Your task to perform on an android device: open a new tab in the chrome app Image 0: 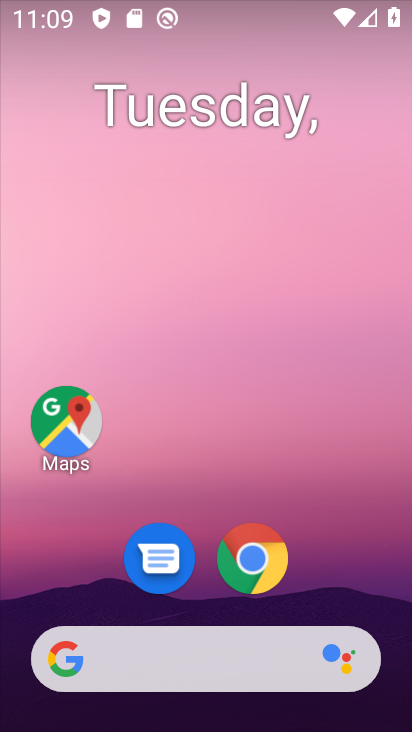
Step 0: drag from (320, 281) to (316, 14)
Your task to perform on an android device: open a new tab in the chrome app Image 1: 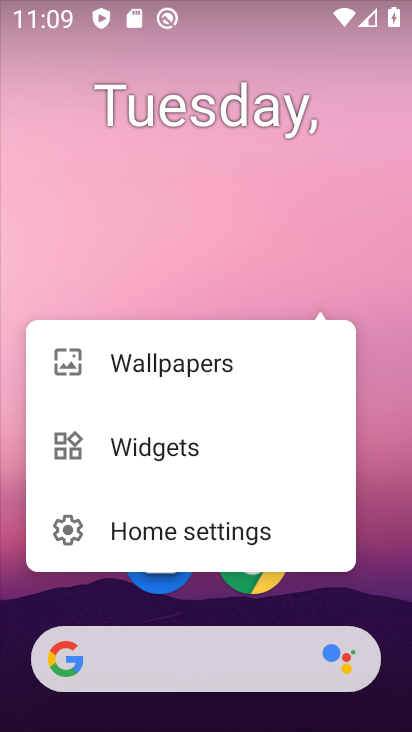
Step 1: click (174, 243)
Your task to perform on an android device: open a new tab in the chrome app Image 2: 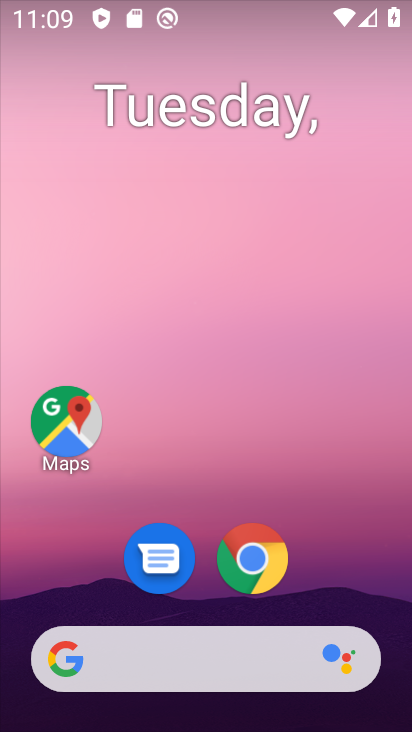
Step 2: click (267, 575)
Your task to perform on an android device: open a new tab in the chrome app Image 3: 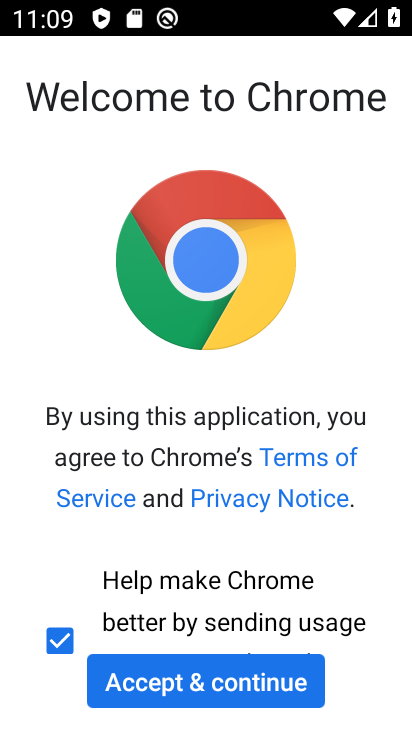
Step 3: click (253, 689)
Your task to perform on an android device: open a new tab in the chrome app Image 4: 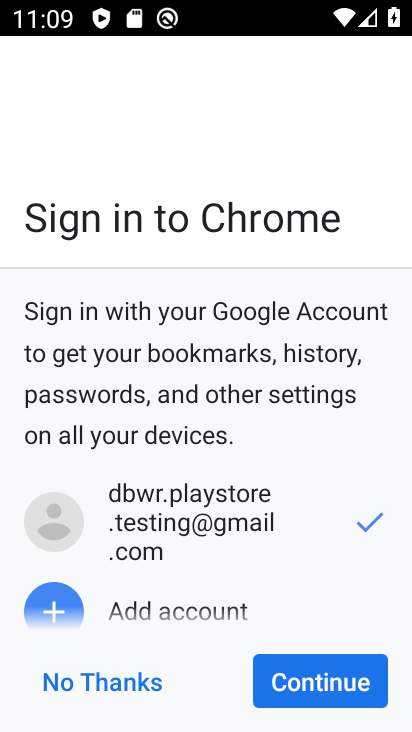
Step 4: click (330, 690)
Your task to perform on an android device: open a new tab in the chrome app Image 5: 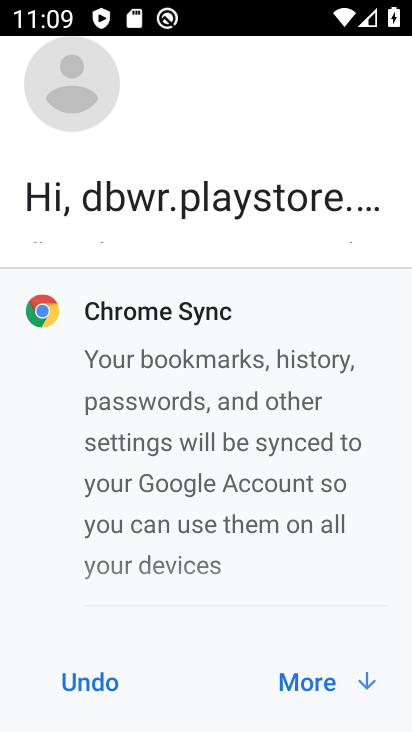
Step 5: click (330, 690)
Your task to perform on an android device: open a new tab in the chrome app Image 6: 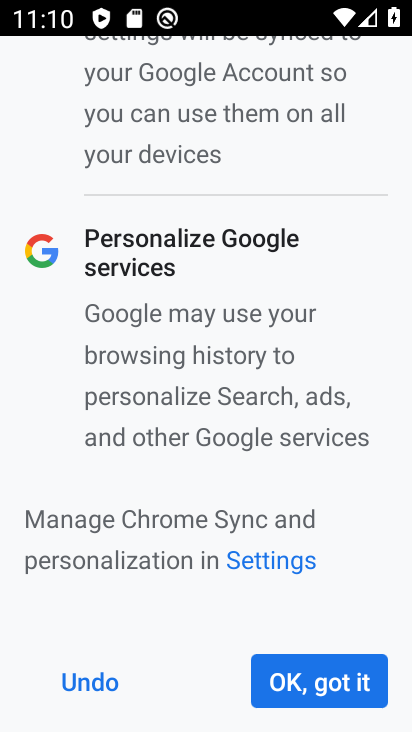
Step 6: click (330, 690)
Your task to perform on an android device: open a new tab in the chrome app Image 7: 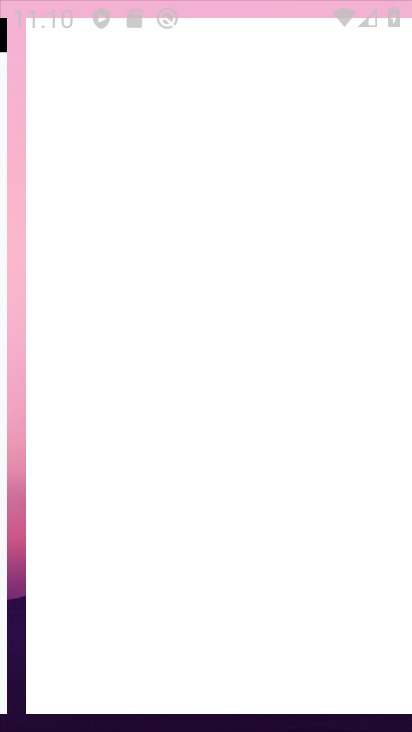
Step 7: click (330, 690)
Your task to perform on an android device: open a new tab in the chrome app Image 8: 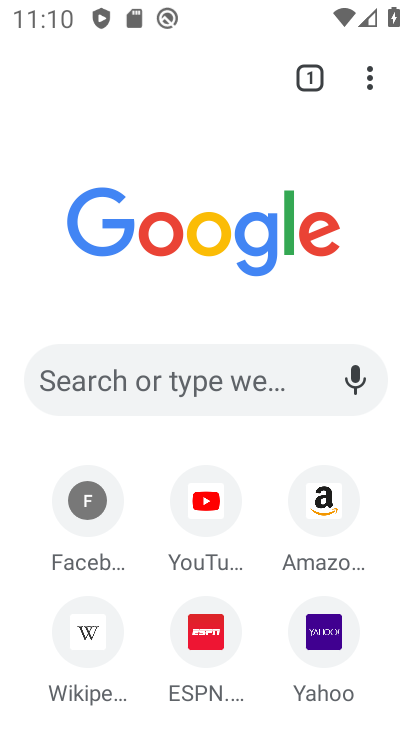
Step 8: task complete